Your task to perform on an android device: uninstall "Google Home" Image 0: 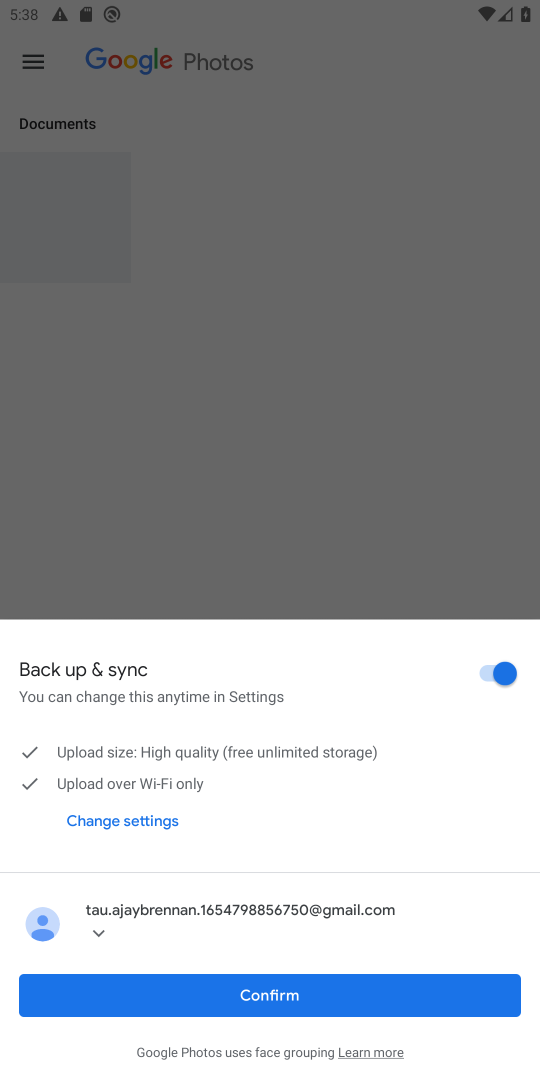
Step 0: press home button
Your task to perform on an android device: uninstall "Google Home" Image 1: 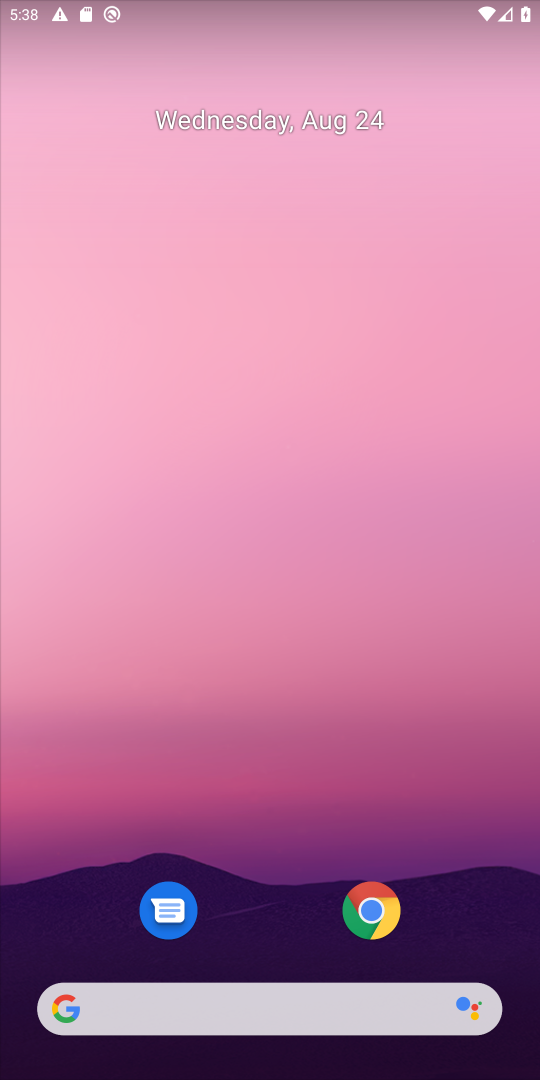
Step 1: drag from (253, 991) to (223, 373)
Your task to perform on an android device: uninstall "Google Home" Image 2: 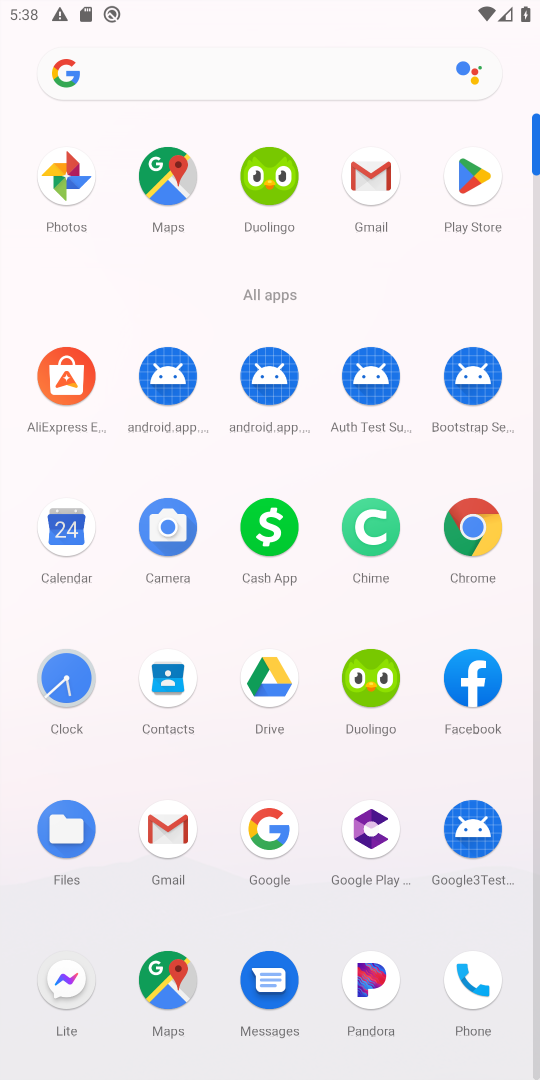
Step 2: click (484, 198)
Your task to perform on an android device: uninstall "Google Home" Image 3: 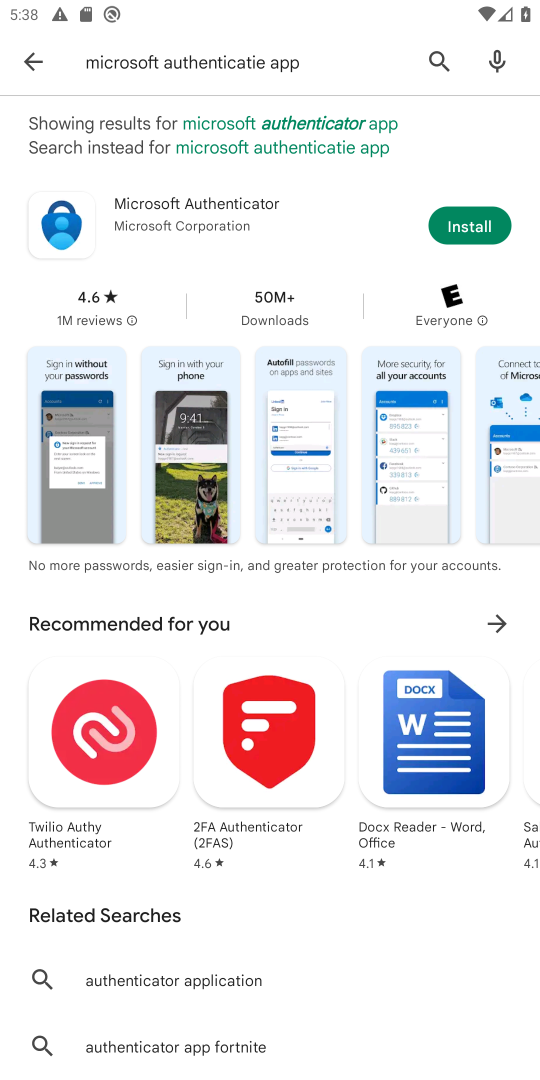
Step 3: click (443, 54)
Your task to perform on an android device: uninstall "Google Home" Image 4: 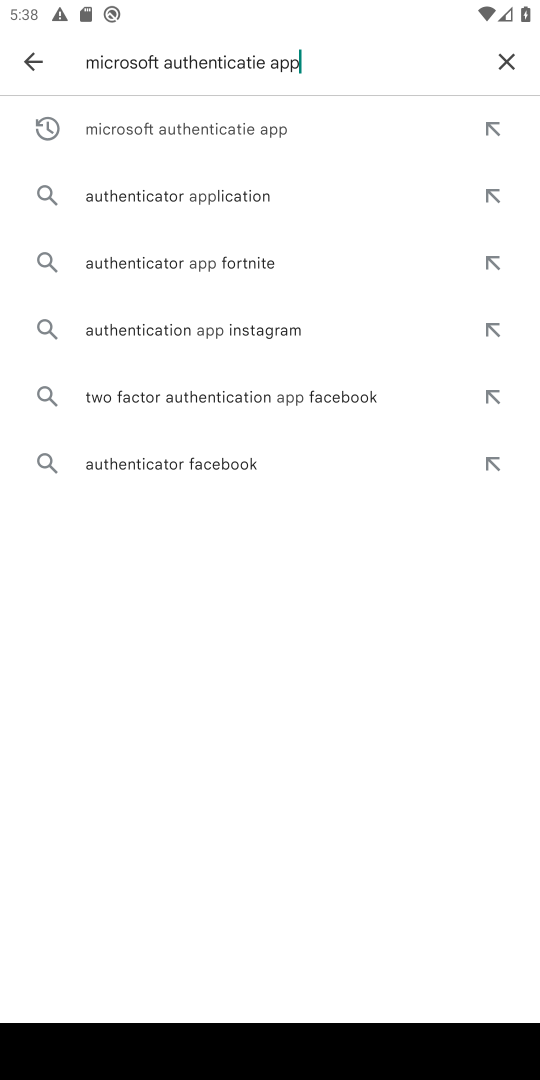
Step 4: click (504, 56)
Your task to perform on an android device: uninstall "Google Home" Image 5: 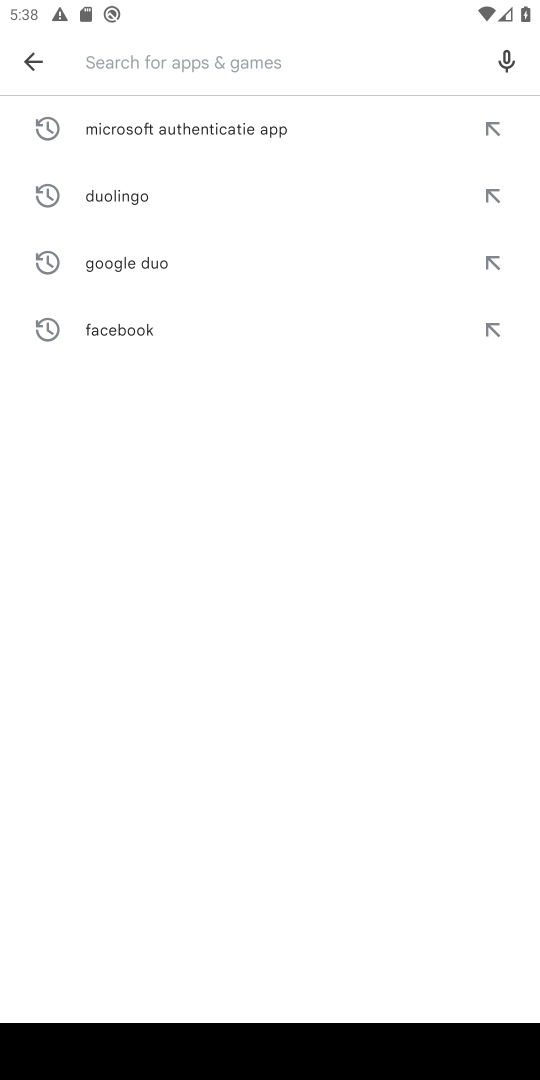
Step 5: type "google home"
Your task to perform on an android device: uninstall "Google Home" Image 6: 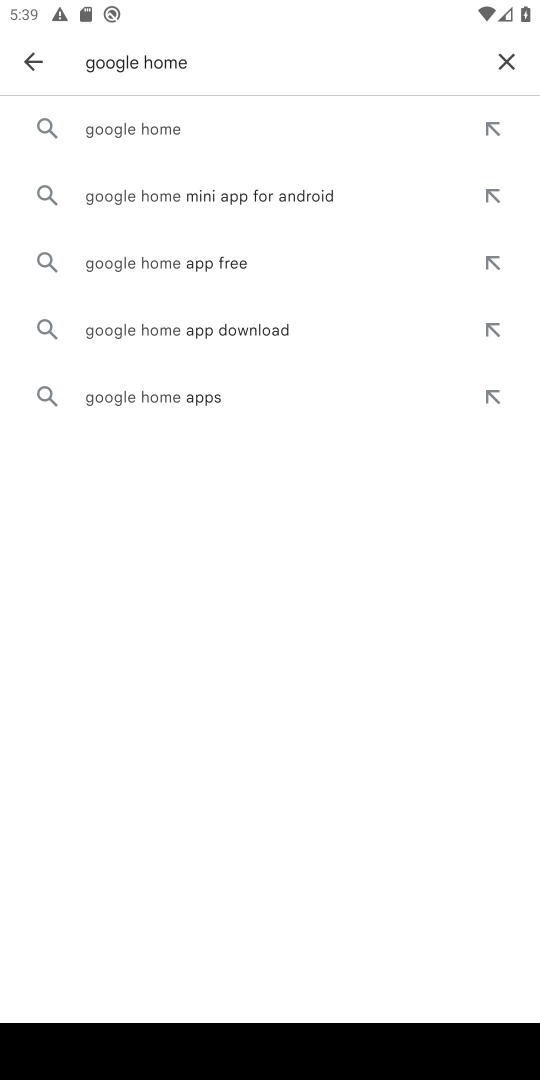
Step 6: click (209, 132)
Your task to perform on an android device: uninstall "Google Home" Image 7: 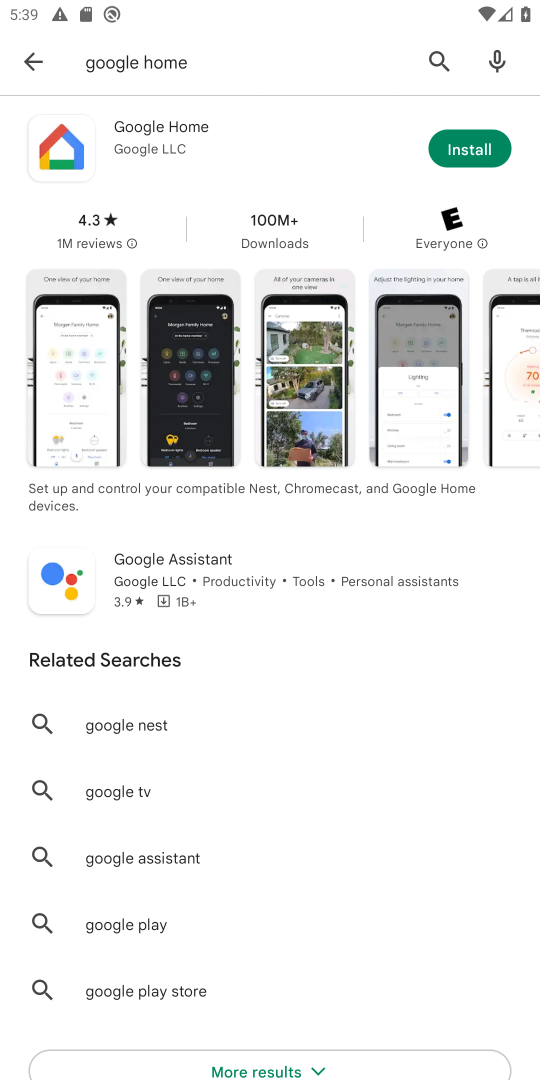
Step 7: task complete